Your task to perform on an android device: open wifi settings Image 0: 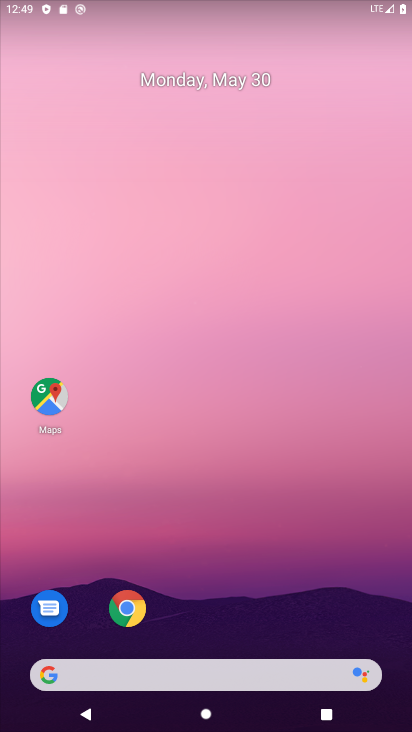
Step 0: drag from (197, 590) to (286, 41)
Your task to perform on an android device: open wifi settings Image 1: 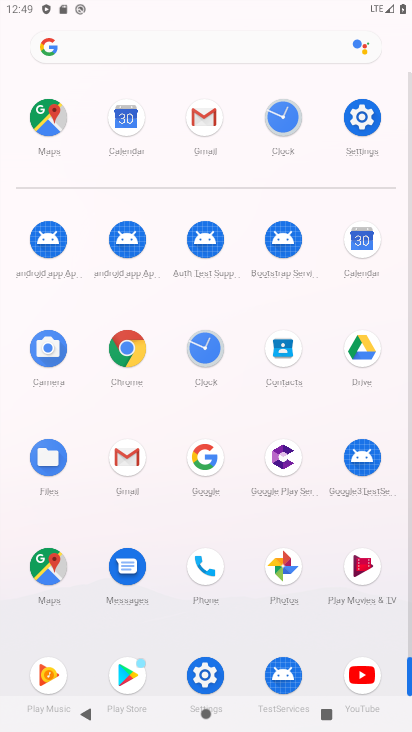
Step 1: click (361, 144)
Your task to perform on an android device: open wifi settings Image 2: 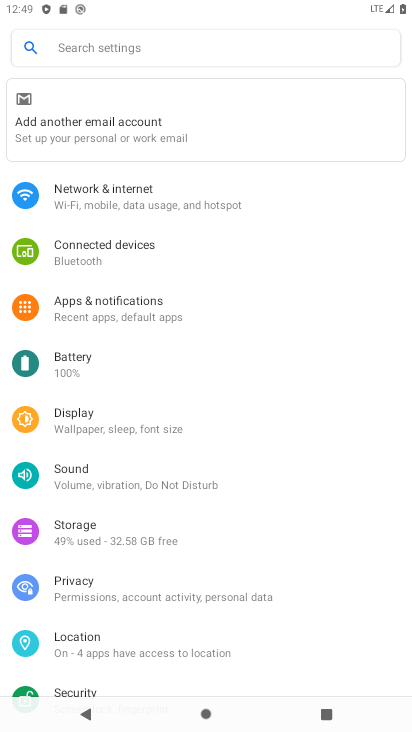
Step 2: click (192, 221)
Your task to perform on an android device: open wifi settings Image 3: 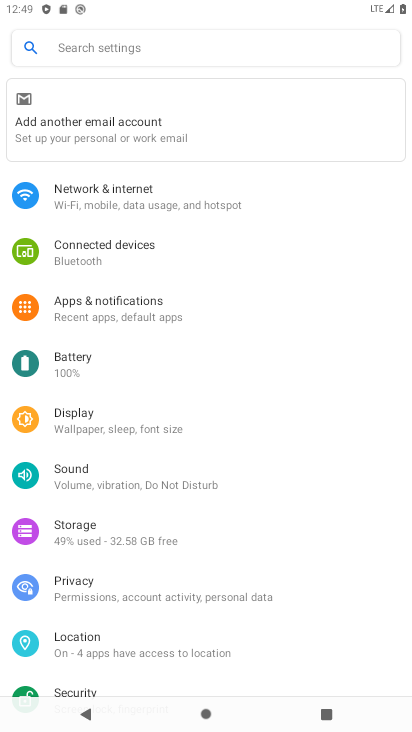
Step 3: click (197, 209)
Your task to perform on an android device: open wifi settings Image 4: 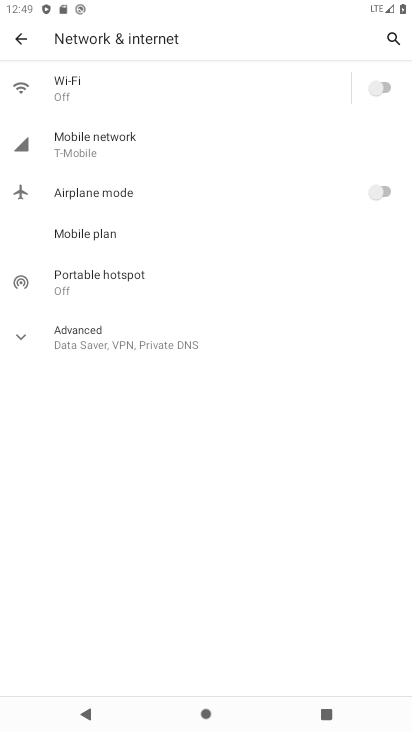
Step 4: click (200, 92)
Your task to perform on an android device: open wifi settings Image 5: 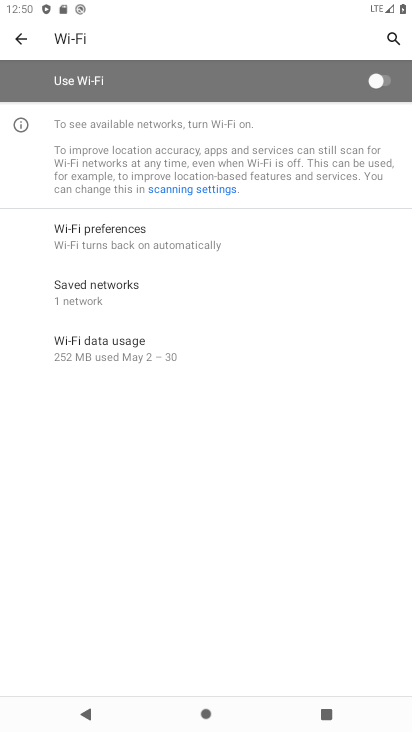
Step 5: task complete